Your task to perform on an android device: Play the last video I watched on Youtube Image 0: 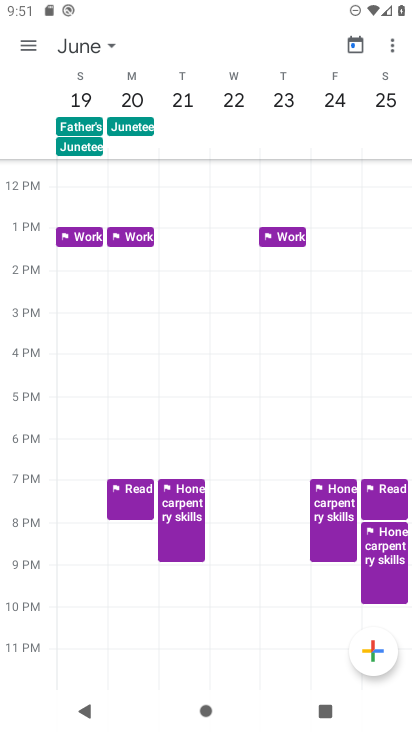
Step 0: press home button
Your task to perform on an android device: Play the last video I watched on Youtube Image 1: 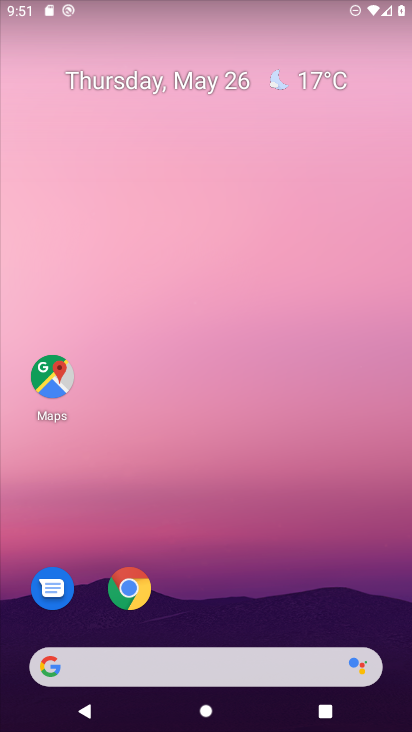
Step 1: drag from (399, 629) to (292, 126)
Your task to perform on an android device: Play the last video I watched on Youtube Image 2: 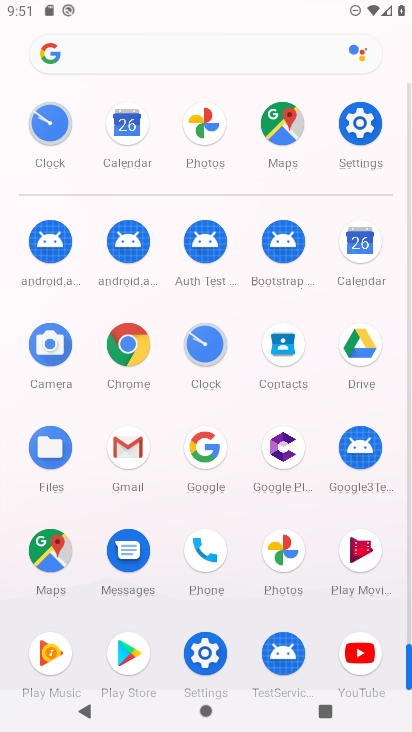
Step 2: click (358, 648)
Your task to perform on an android device: Play the last video I watched on Youtube Image 3: 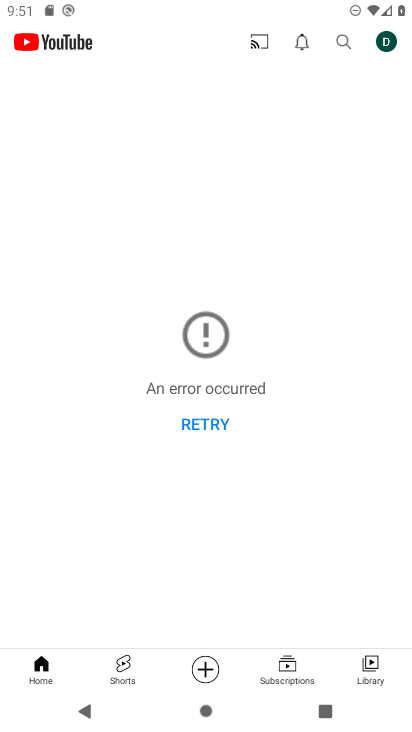
Step 3: click (372, 670)
Your task to perform on an android device: Play the last video I watched on Youtube Image 4: 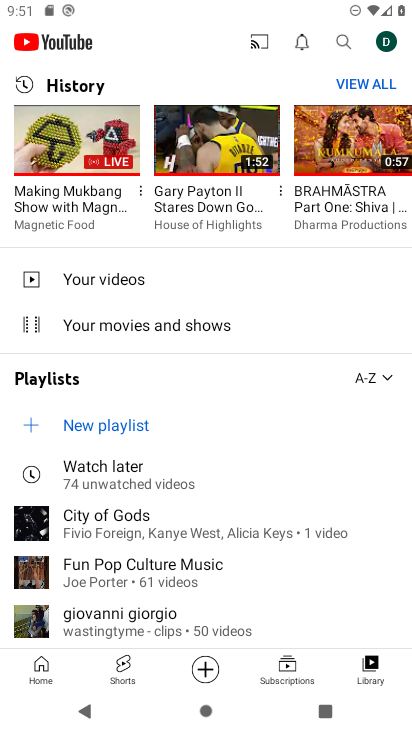
Step 4: click (70, 139)
Your task to perform on an android device: Play the last video I watched on Youtube Image 5: 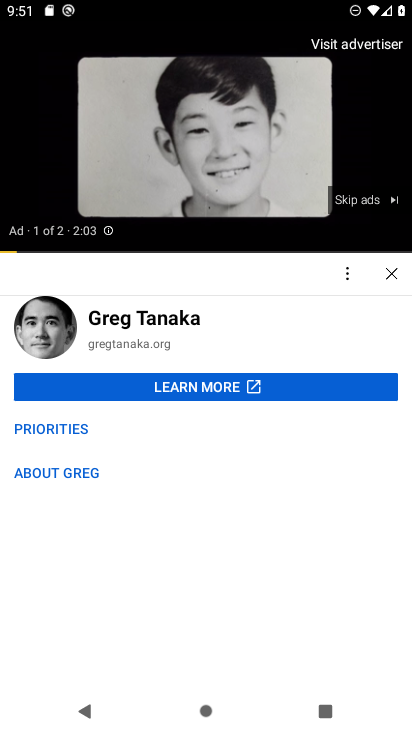
Step 5: click (382, 200)
Your task to perform on an android device: Play the last video I watched on Youtube Image 6: 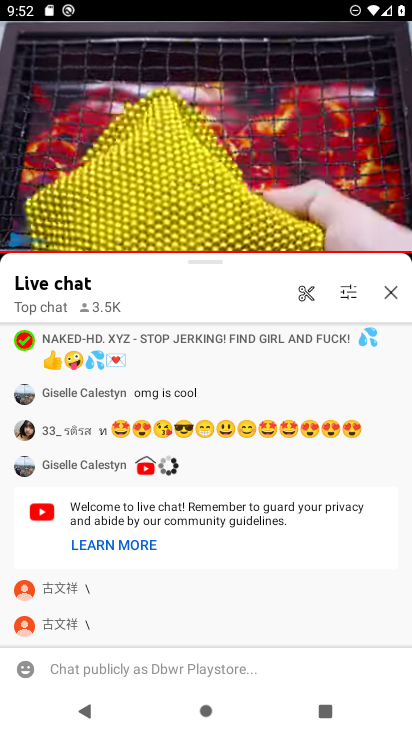
Step 6: click (238, 129)
Your task to perform on an android device: Play the last video I watched on Youtube Image 7: 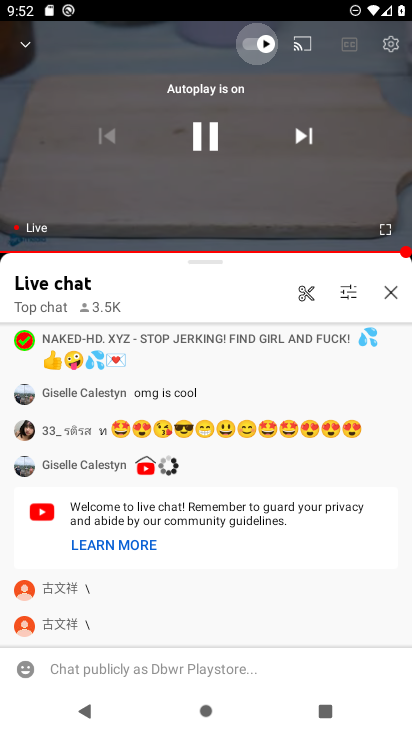
Step 7: click (238, 129)
Your task to perform on an android device: Play the last video I watched on Youtube Image 8: 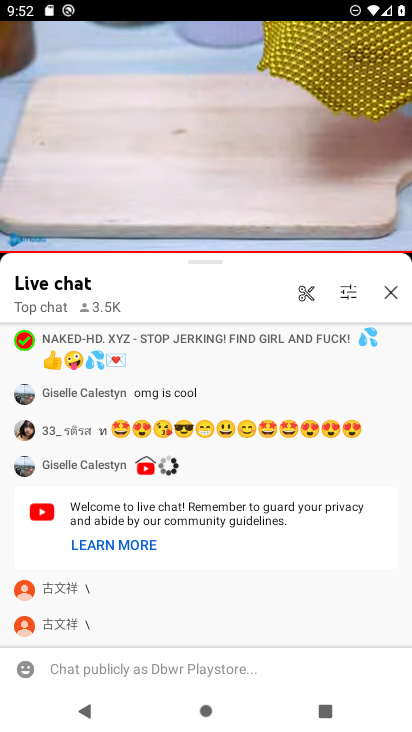
Step 8: click (199, 138)
Your task to perform on an android device: Play the last video I watched on Youtube Image 9: 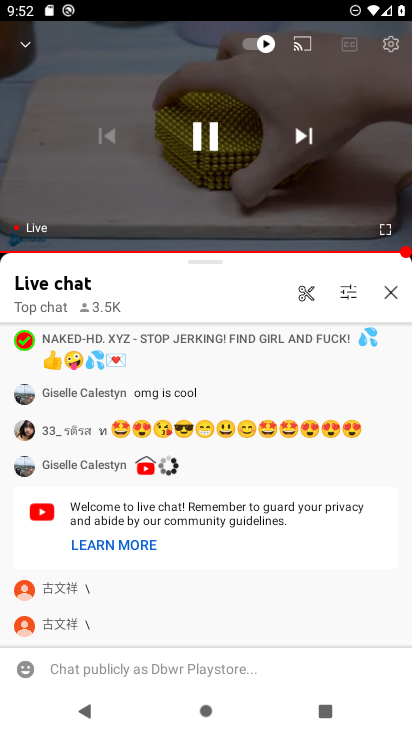
Step 9: click (199, 138)
Your task to perform on an android device: Play the last video I watched on Youtube Image 10: 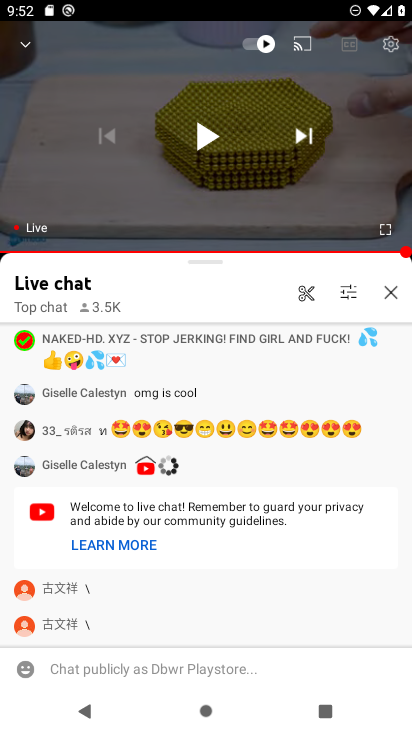
Step 10: task complete